Your task to perform on an android device: Go to Yahoo.com Image 0: 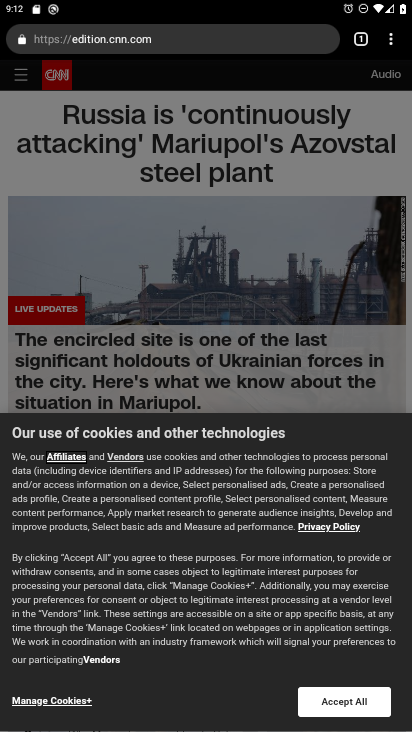
Step 0: press home button
Your task to perform on an android device: Go to Yahoo.com Image 1: 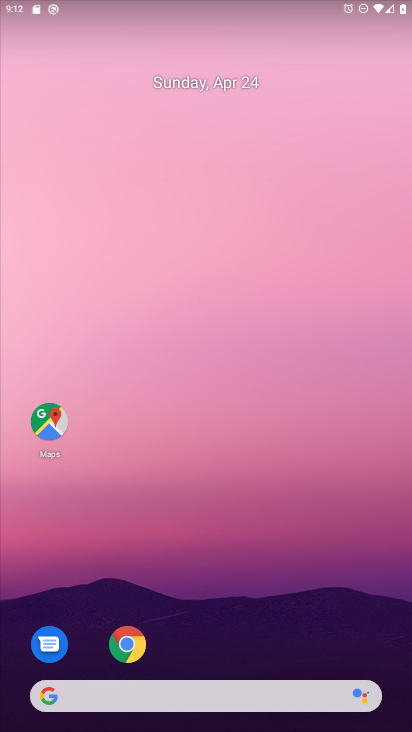
Step 1: drag from (216, 671) to (101, 109)
Your task to perform on an android device: Go to Yahoo.com Image 2: 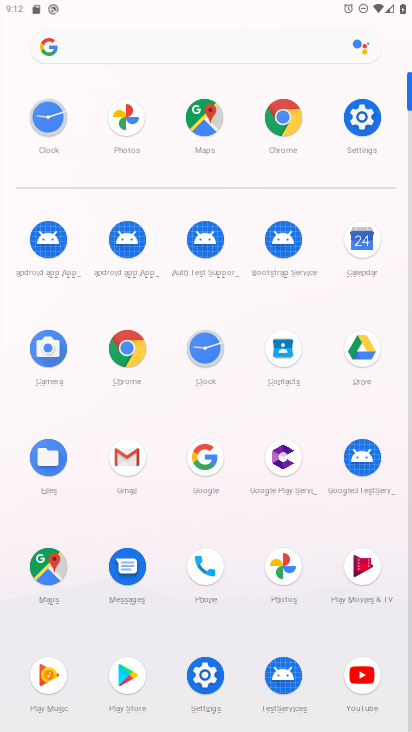
Step 2: click (131, 340)
Your task to perform on an android device: Go to Yahoo.com Image 3: 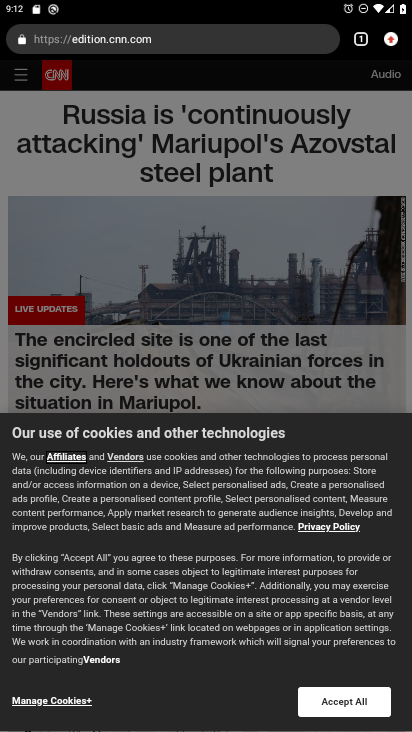
Step 3: click (363, 34)
Your task to perform on an android device: Go to Yahoo.com Image 4: 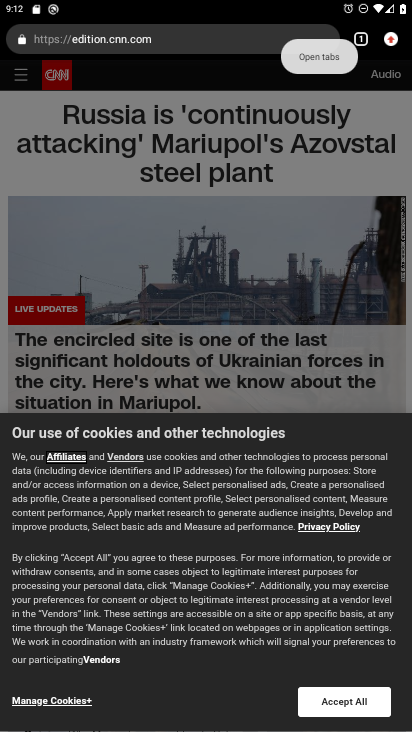
Step 4: click (353, 42)
Your task to perform on an android device: Go to Yahoo.com Image 5: 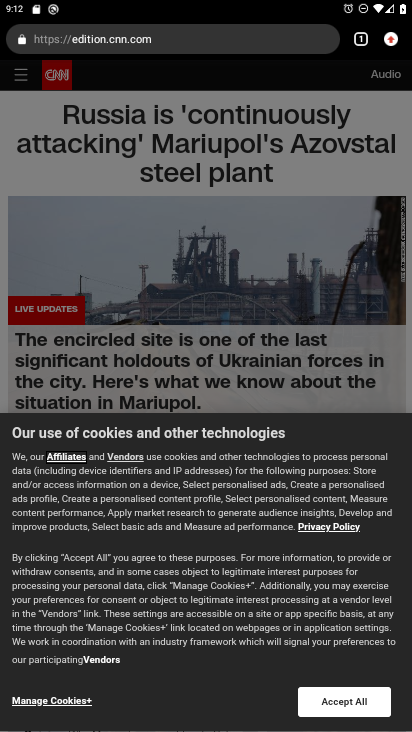
Step 5: click (358, 35)
Your task to perform on an android device: Go to Yahoo.com Image 6: 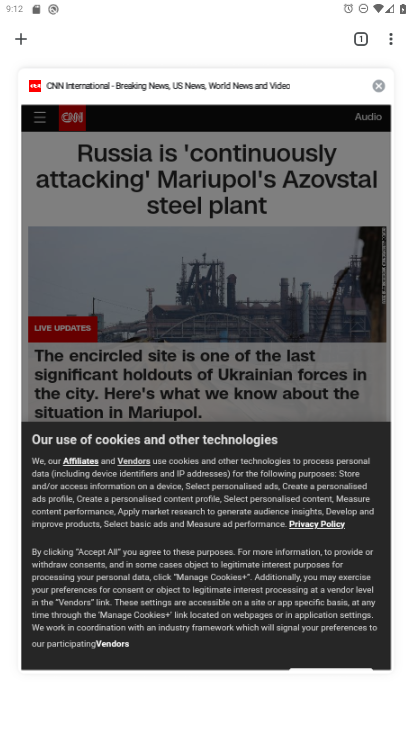
Step 6: click (17, 33)
Your task to perform on an android device: Go to Yahoo.com Image 7: 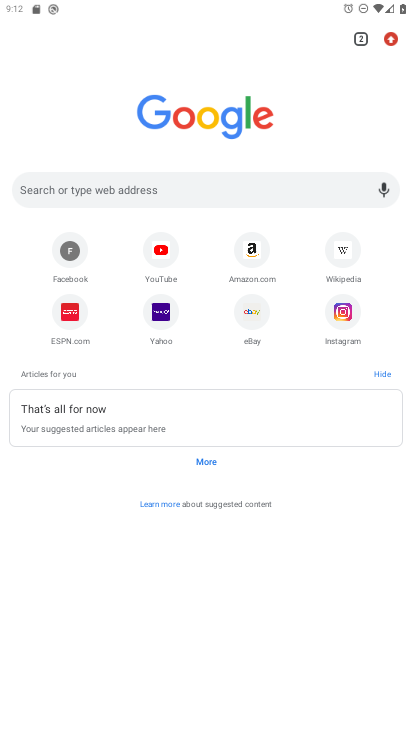
Step 7: click (159, 325)
Your task to perform on an android device: Go to Yahoo.com Image 8: 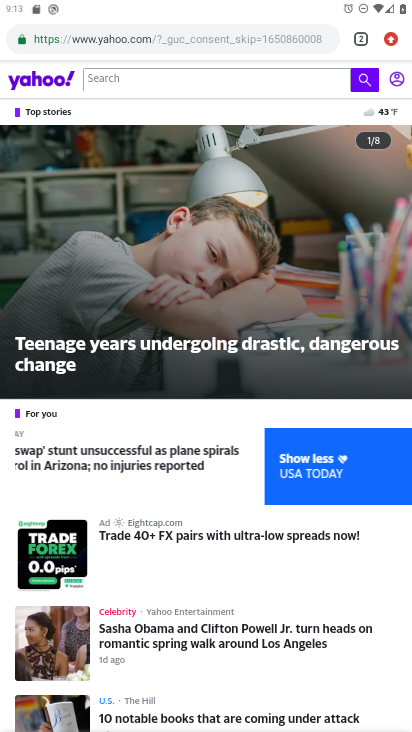
Step 8: task complete